Your task to perform on an android device: Open Amazon Image 0: 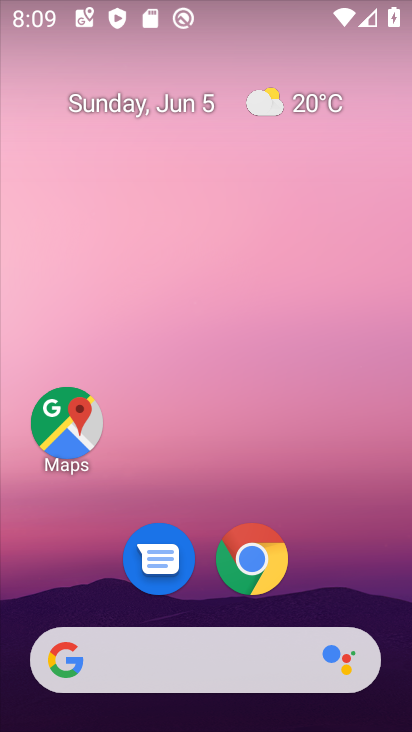
Step 0: click (254, 554)
Your task to perform on an android device: Open Amazon Image 1: 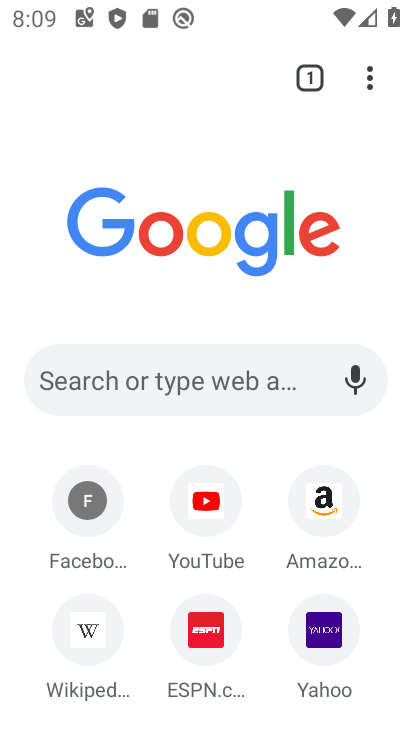
Step 1: click (325, 490)
Your task to perform on an android device: Open Amazon Image 2: 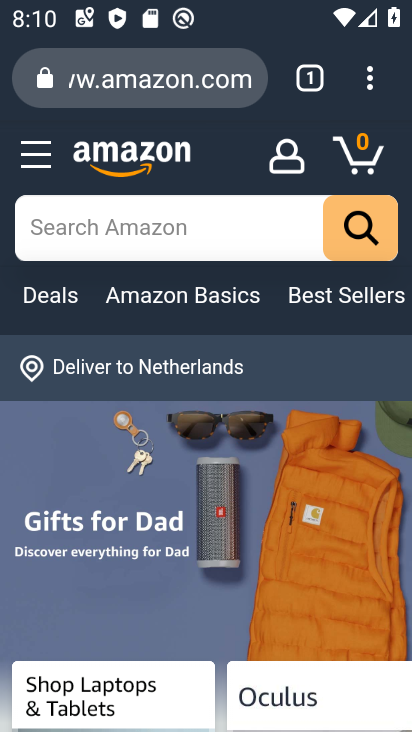
Step 2: task complete